Your task to perform on an android device: Search for vegetarian restaurants on Maps Image 0: 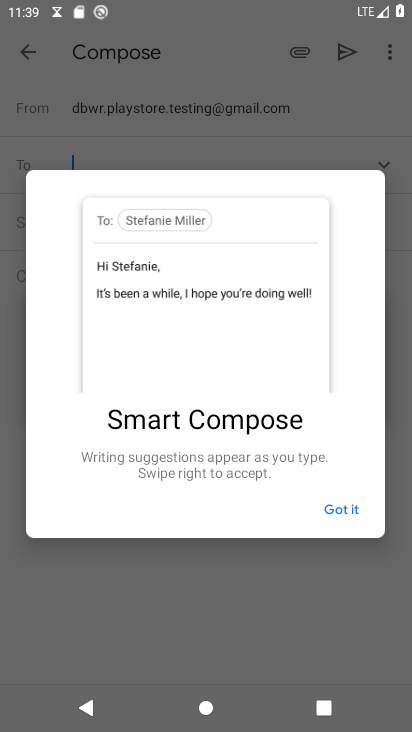
Step 0: press home button
Your task to perform on an android device: Search for vegetarian restaurants on Maps Image 1: 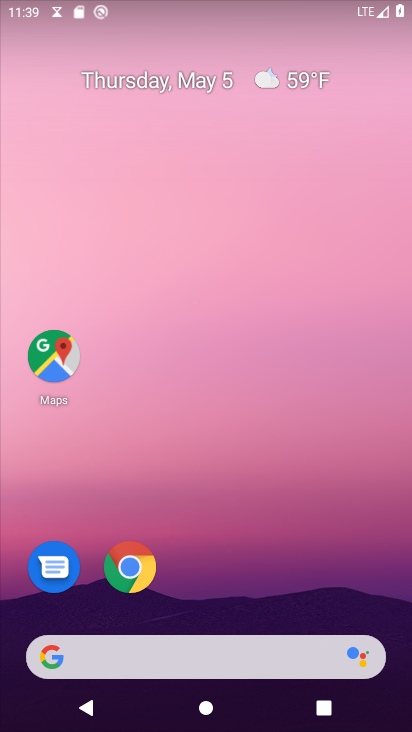
Step 1: click (54, 343)
Your task to perform on an android device: Search for vegetarian restaurants on Maps Image 2: 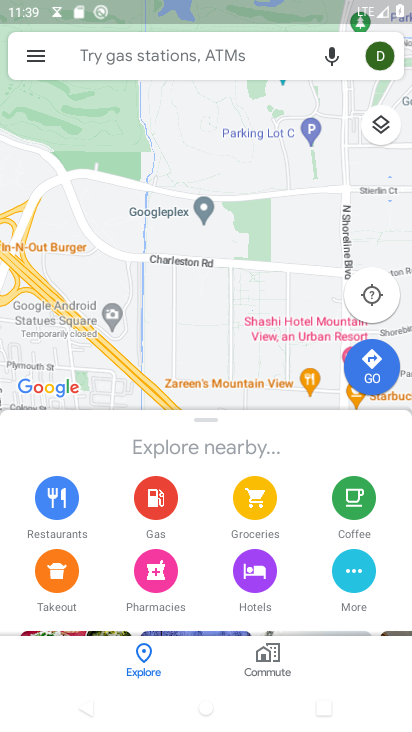
Step 2: click (96, 48)
Your task to perform on an android device: Search for vegetarian restaurants on Maps Image 3: 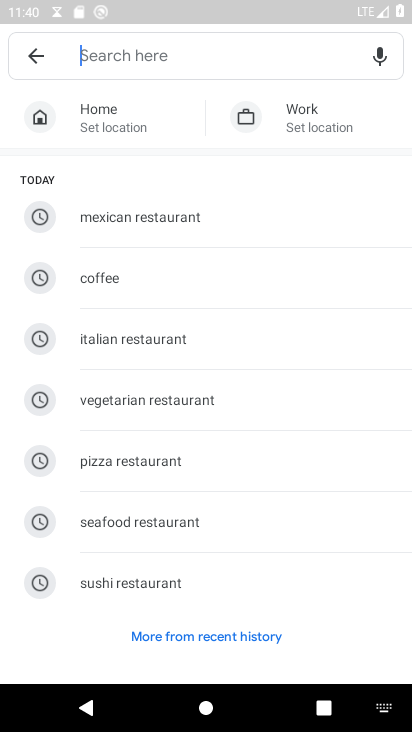
Step 3: type "vegetarian restaurant"
Your task to perform on an android device: Search for vegetarian restaurants on Maps Image 4: 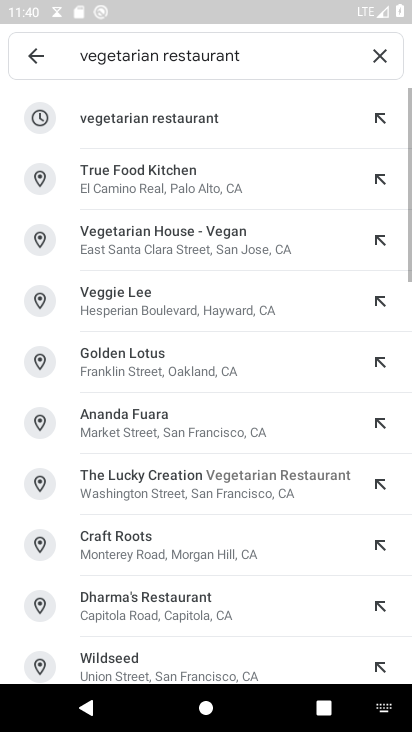
Step 4: click (147, 120)
Your task to perform on an android device: Search for vegetarian restaurants on Maps Image 5: 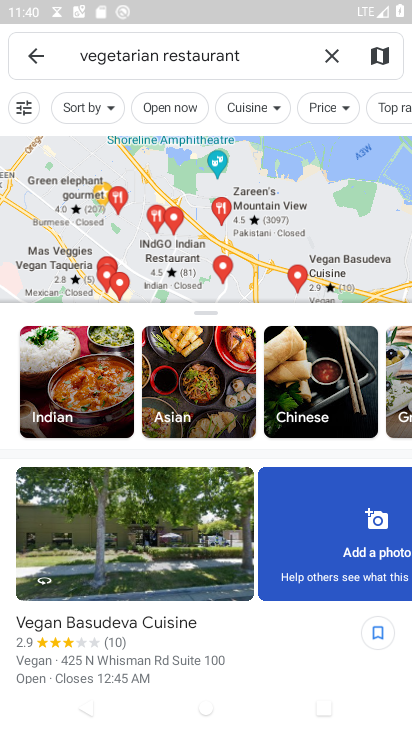
Step 5: task complete